Your task to perform on an android device: Add "logitech g502" to the cart on costco.com Image 0: 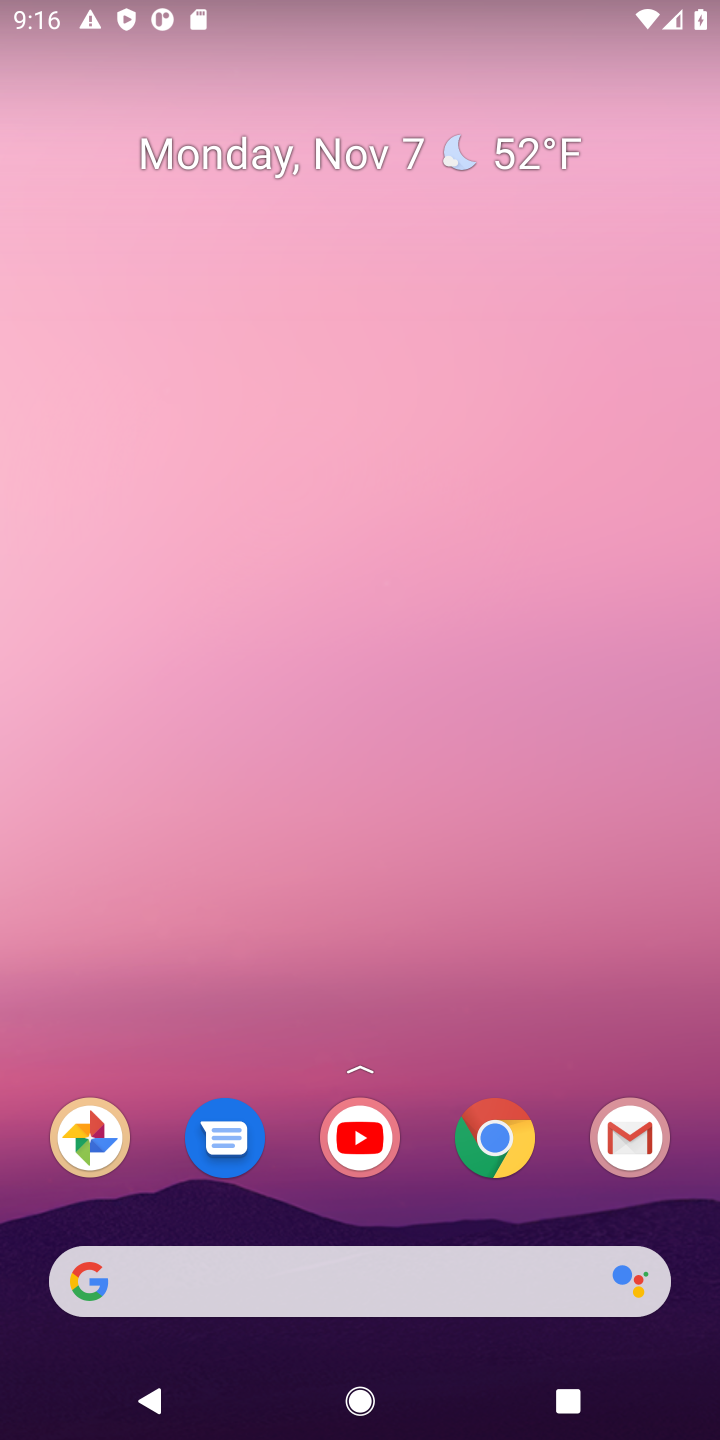
Step 0: drag from (437, 1236) to (403, 43)
Your task to perform on an android device: Add "logitech g502" to the cart on costco.com Image 1: 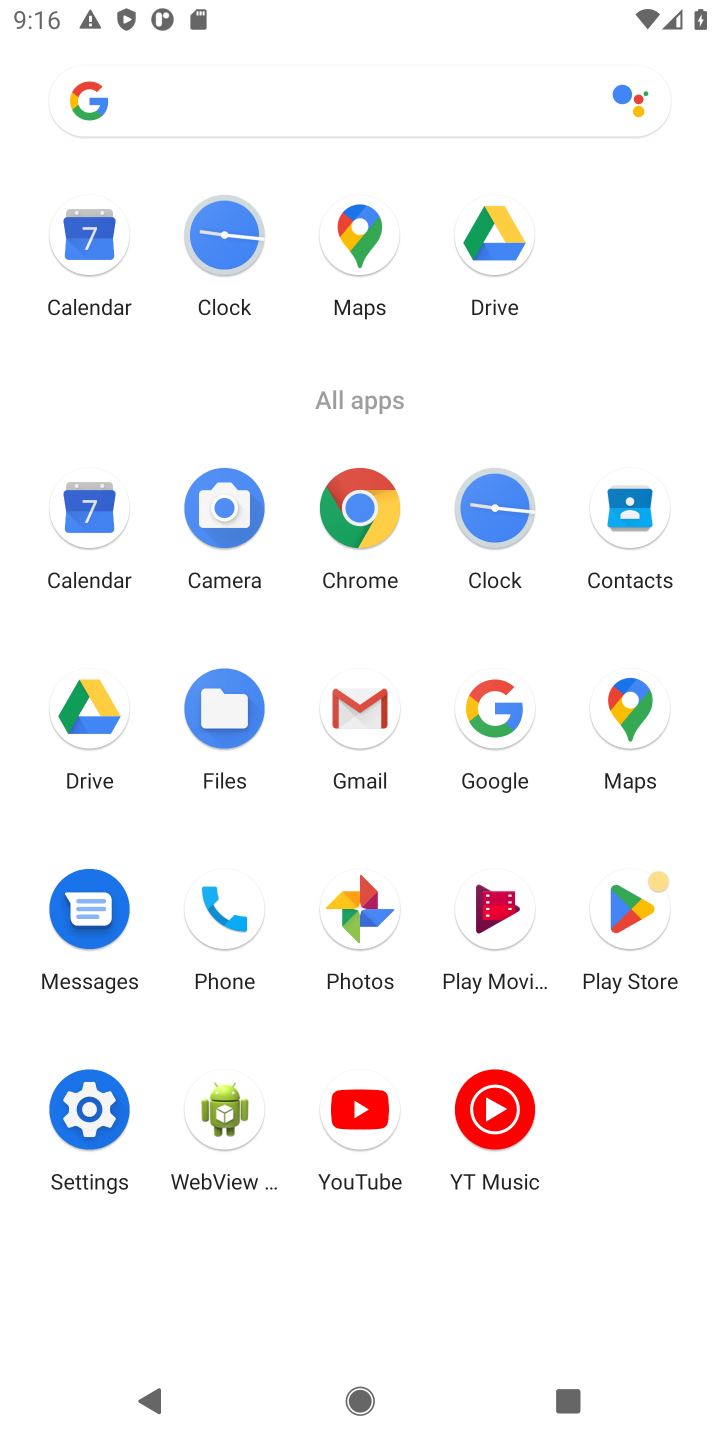
Step 1: click (358, 510)
Your task to perform on an android device: Add "logitech g502" to the cart on costco.com Image 2: 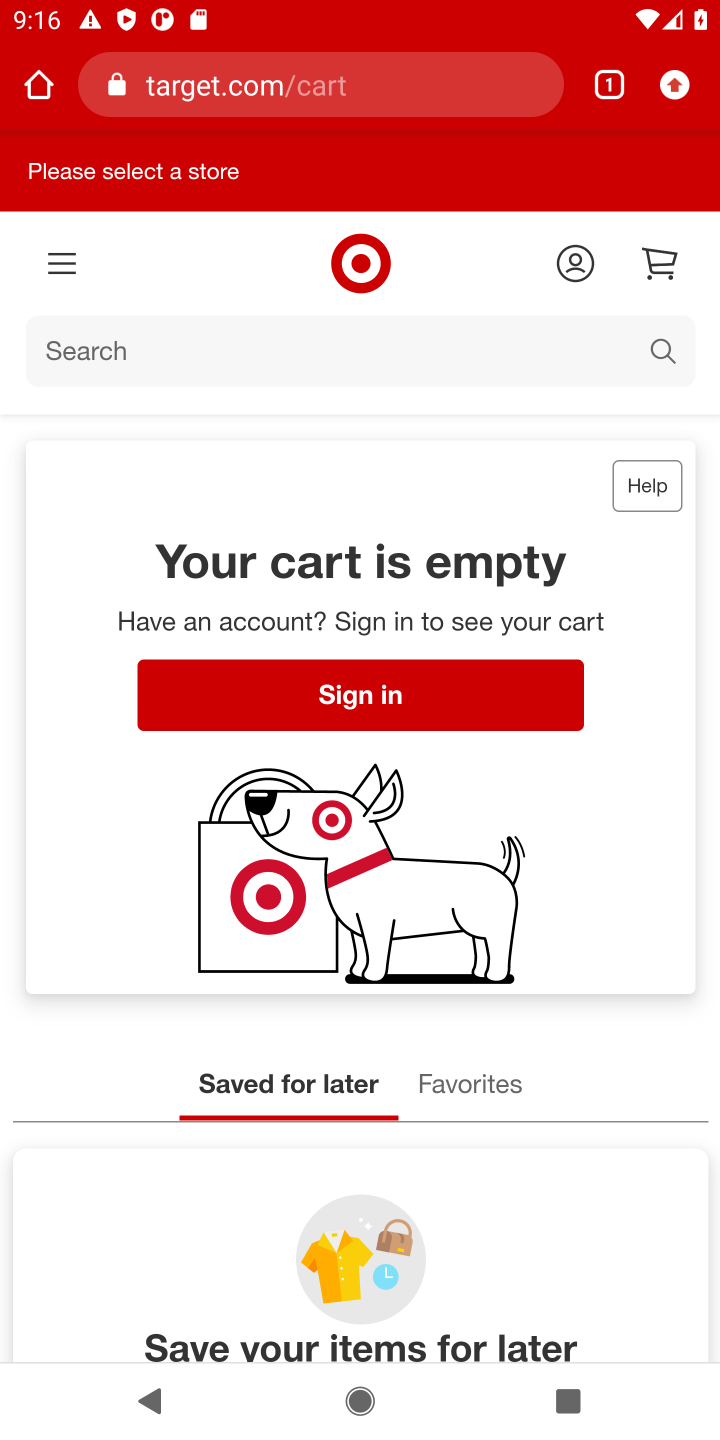
Step 2: click (333, 96)
Your task to perform on an android device: Add "logitech g502" to the cart on costco.com Image 3: 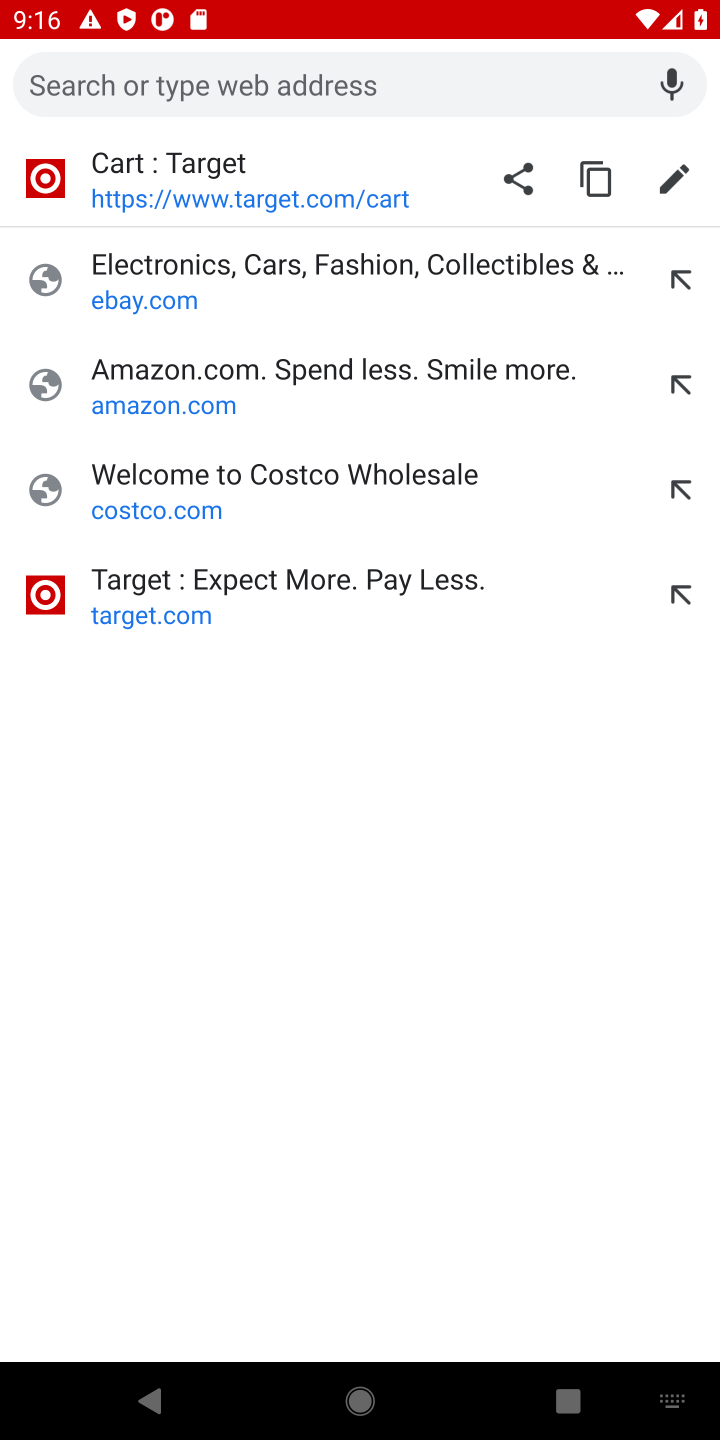
Step 3: type "costco.com"
Your task to perform on an android device: Add "logitech g502" to the cart on costco.com Image 4: 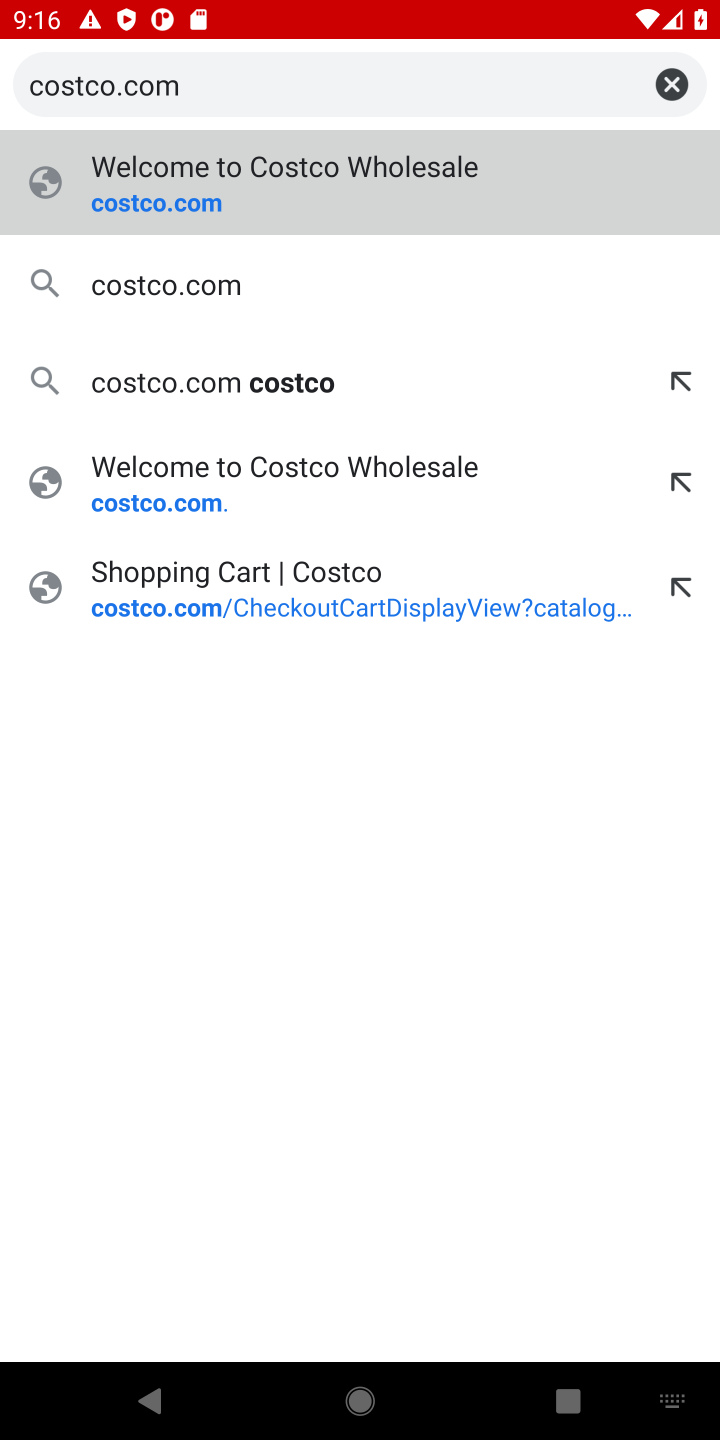
Step 4: press enter
Your task to perform on an android device: Add "logitech g502" to the cart on costco.com Image 5: 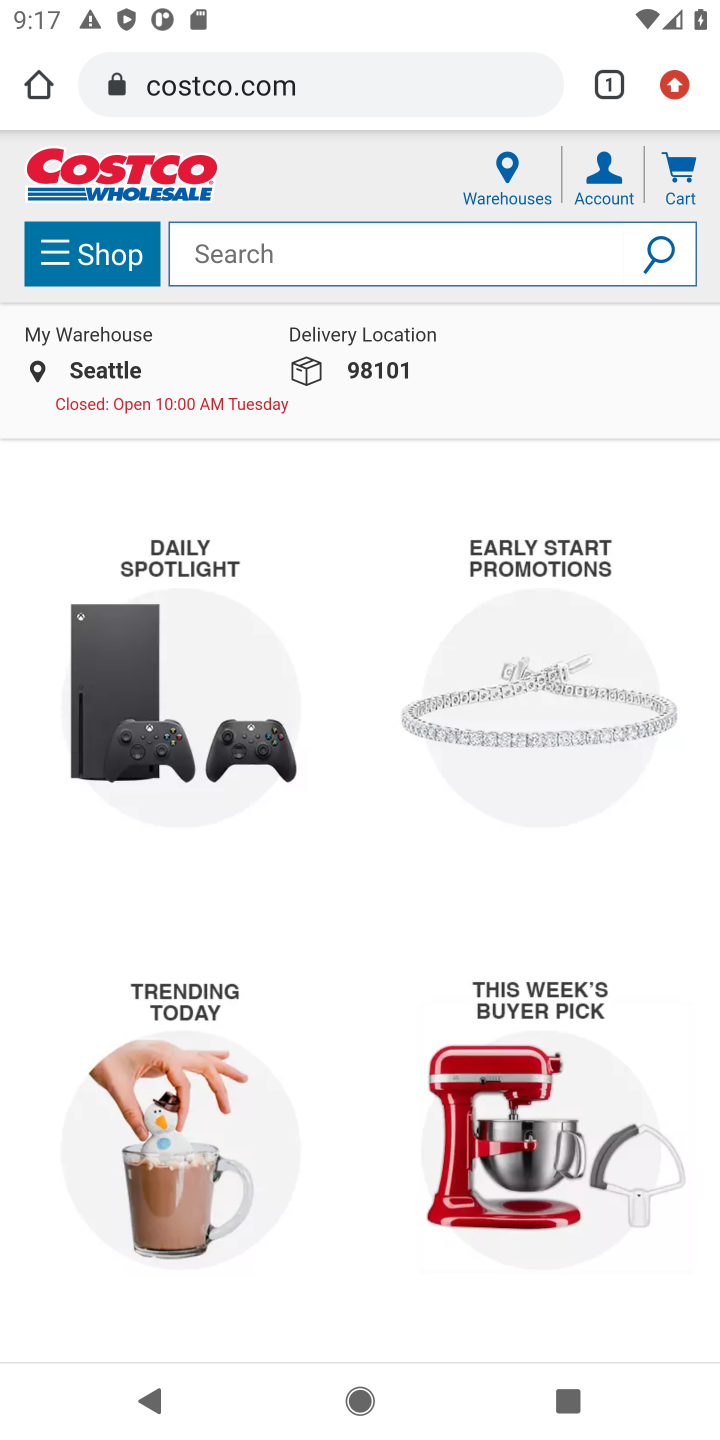
Step 5: click (336, 235)
Your task to perform on an android device: Add "logitech g502" to the cart on costco.com Image 6: 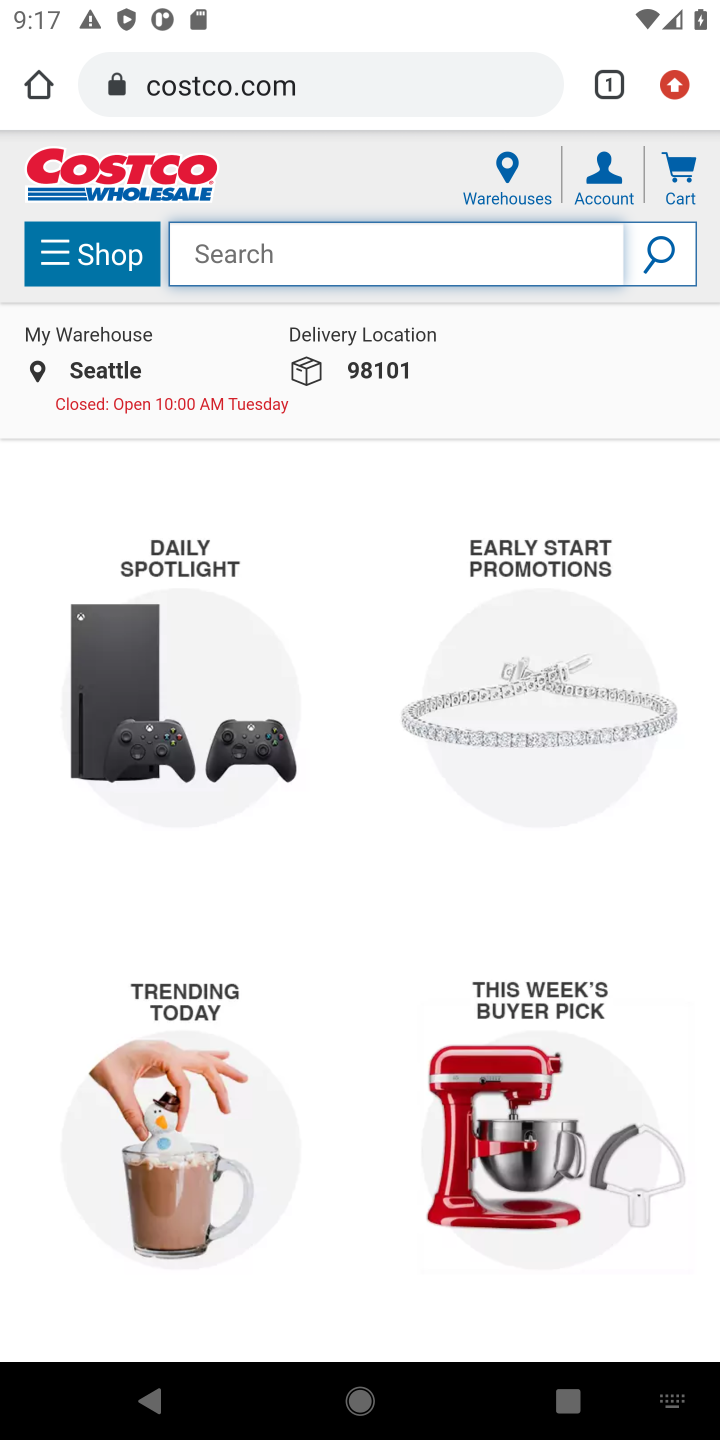
Step 6: type "logitech g502"
Your task to perform on an android device: Add "logitech g502" to the cart on costco.com Image 7: 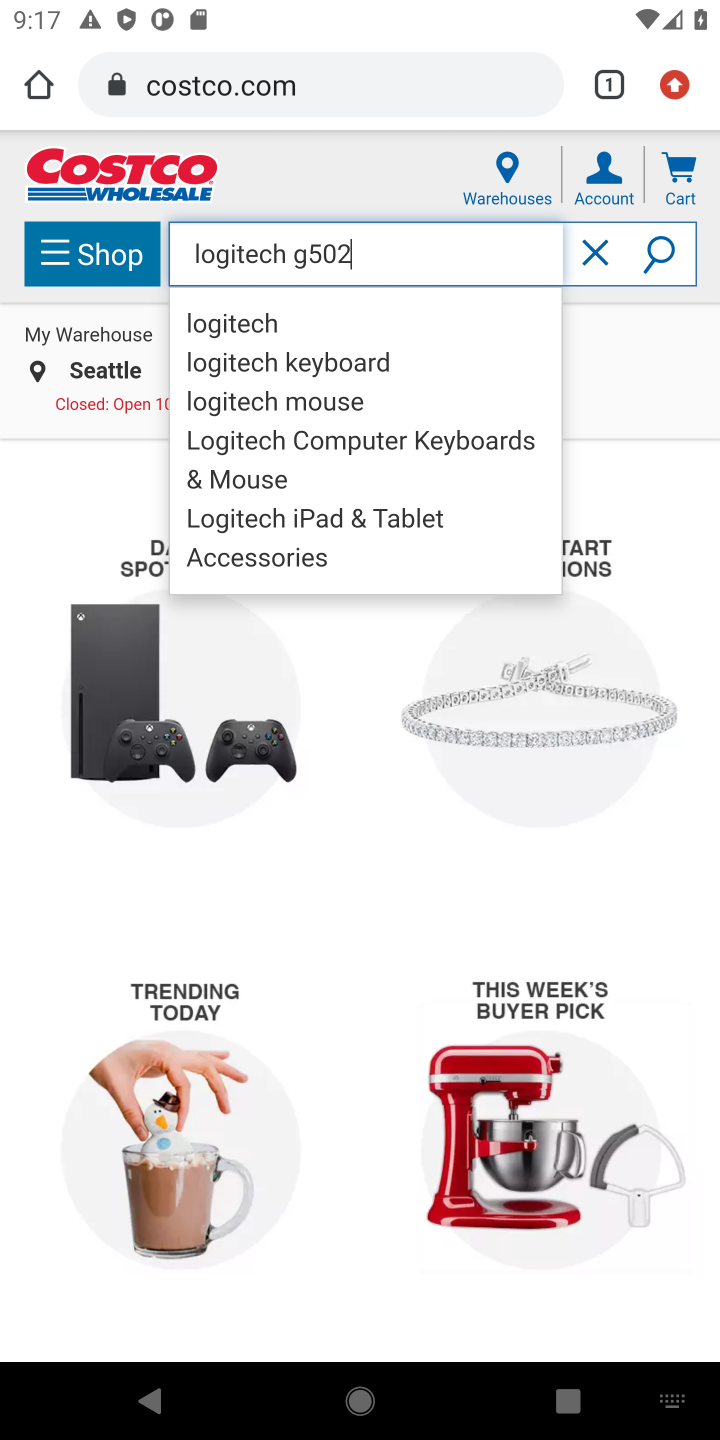
Step 7: press enter
Your task to perform on an android device: Add "logitech g502" to the cart on costco.com Image 8: 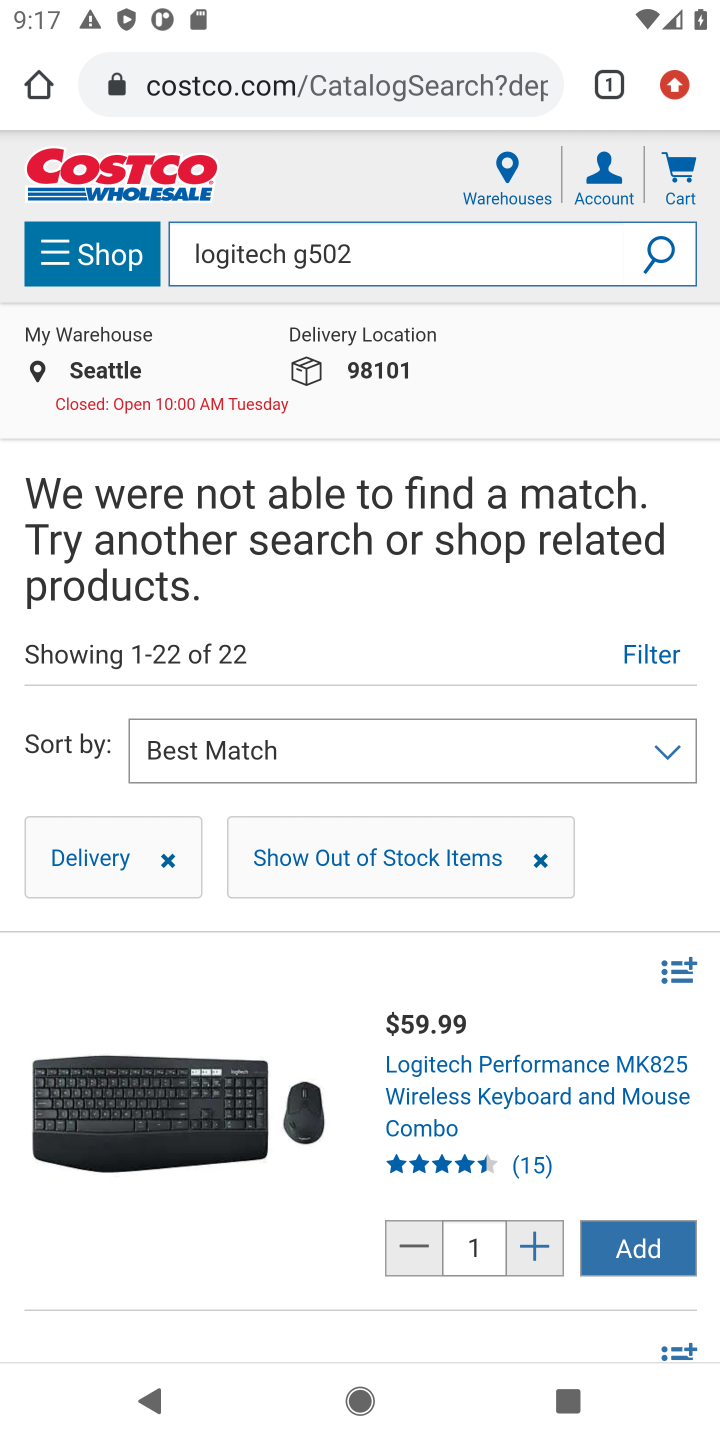
Step 8: task complete